Your task to perform on an android device: Show me recent news Image 0: 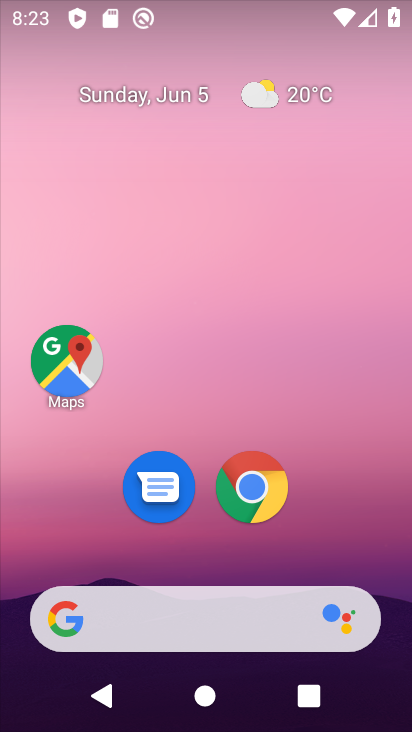
Step 0: click (262, 491)
Your task to perform on an android device: Show me recent news Image 1: 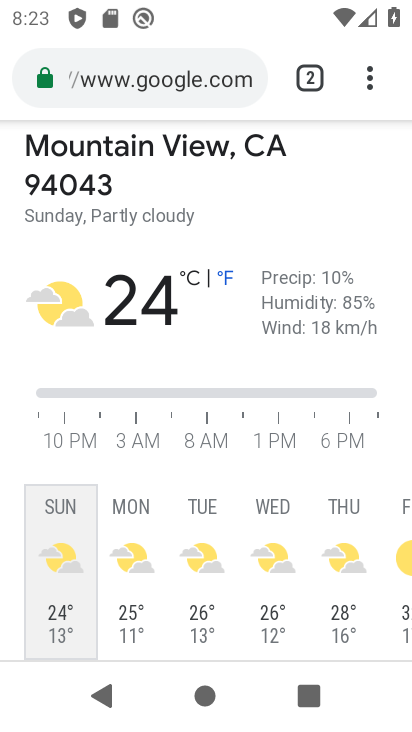
Step 1: click (377, 70)
Your task to perform on an android device: Show me recent news Image 2: 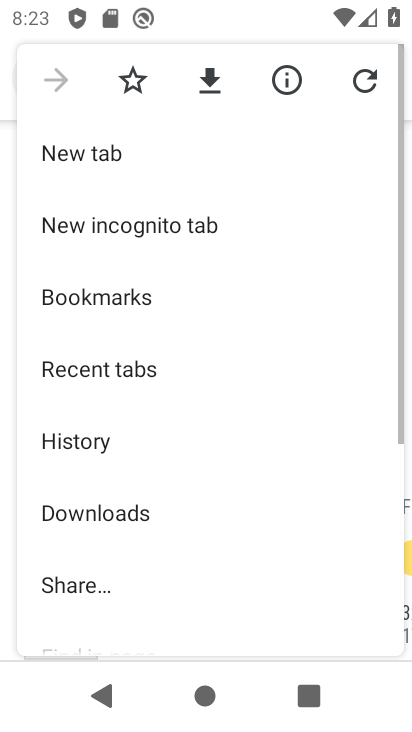
Step 2: click (104, 147)
Your task to perform on an android device: Show me recent news Image 3: 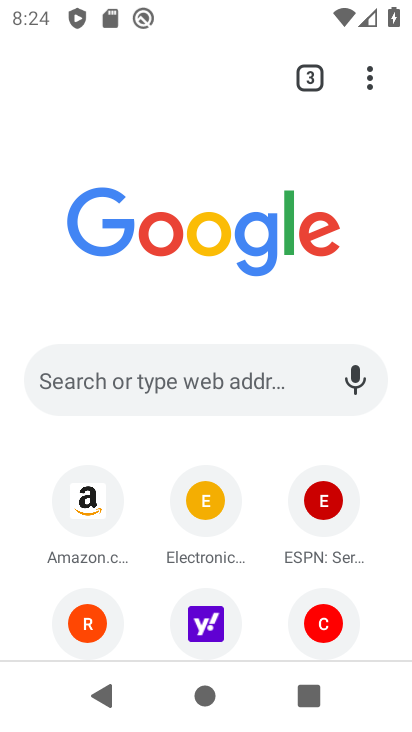
Step 3: click (188, 380)
Your task to perform on an android device: Show me recent news Image 4: 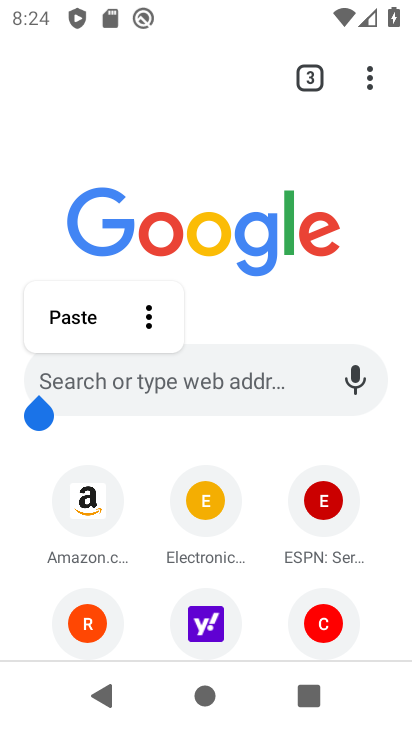
Step 4: type "Show me recent news"
Your task to perform on an android device: Show me recent news Image 5: 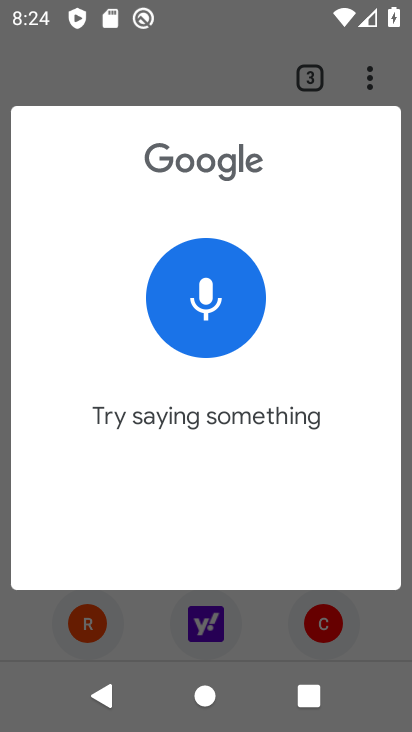
Step 5: click (373, 624)
Your task to perform on an android device: Show me recent news Image 6: 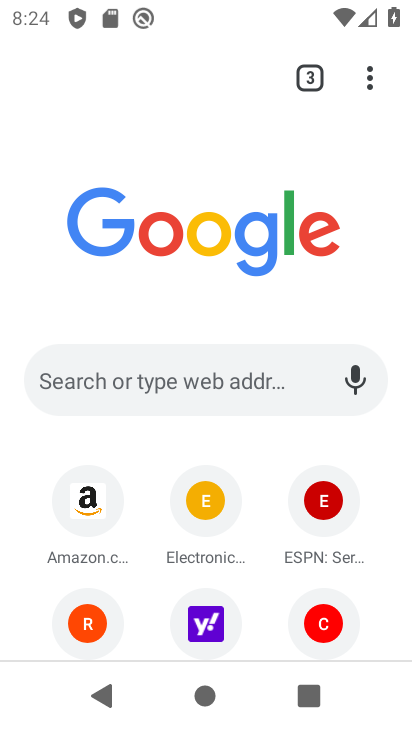
Step 6: click (146, 372)
Your task to perform on an android device: Show me recent news Image 7: 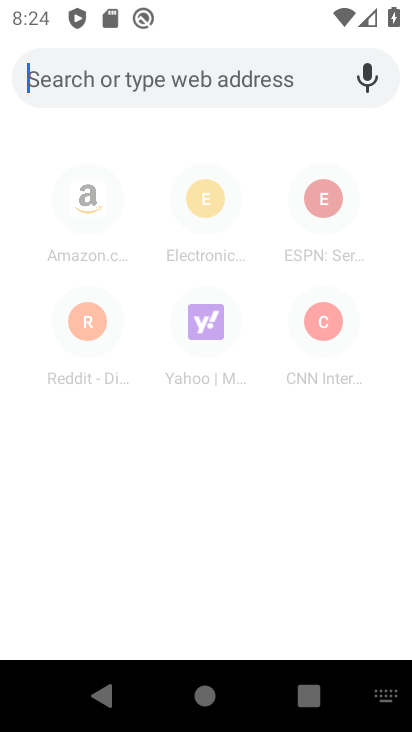
Step 7: type "Show me recent news"
Your task to perform on an android device: Show me recent news Image 8: 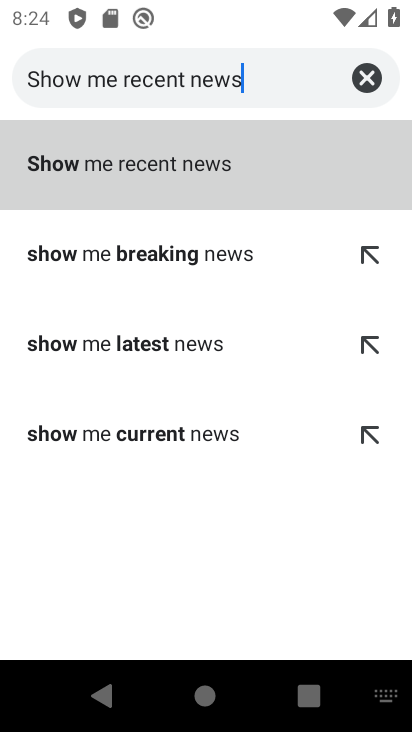
Step 8: click (87, 148)
Your task to perform on an android device: Show me recent news Image 9: 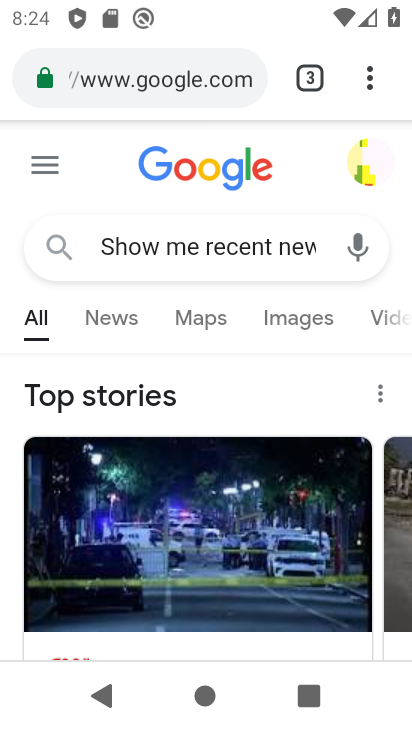
Step 9: task complete